Your task to perform on an android device: Open Amazon Image 0: 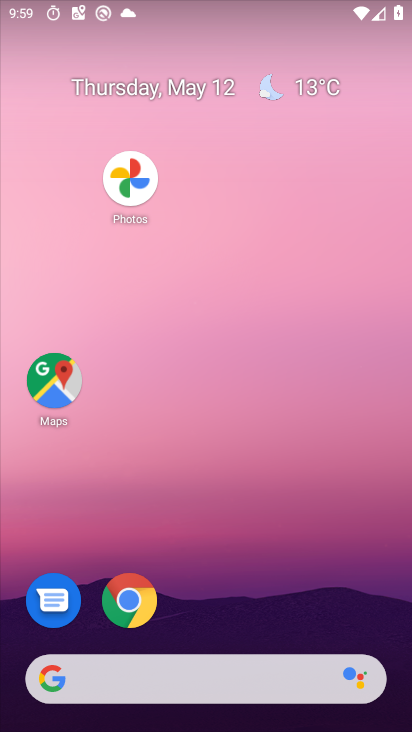
Step 0: click (162, 136)
Your task to perform on an android device: Open Amazon Image 1: 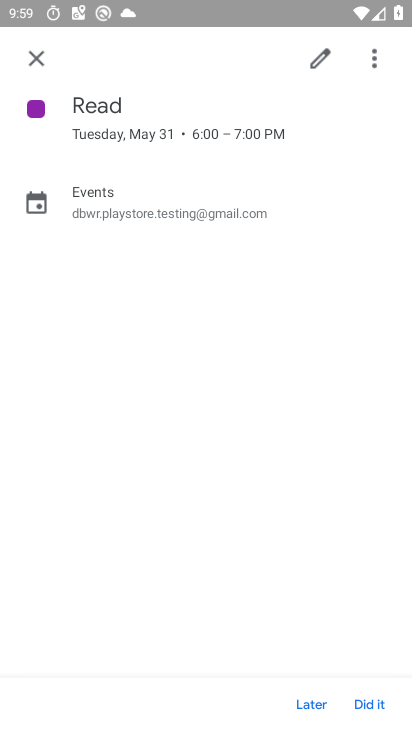
Step 1: drag from (217, 288) to (209, 239)
Your task to perform on an android device: Open Amazon Image 2: 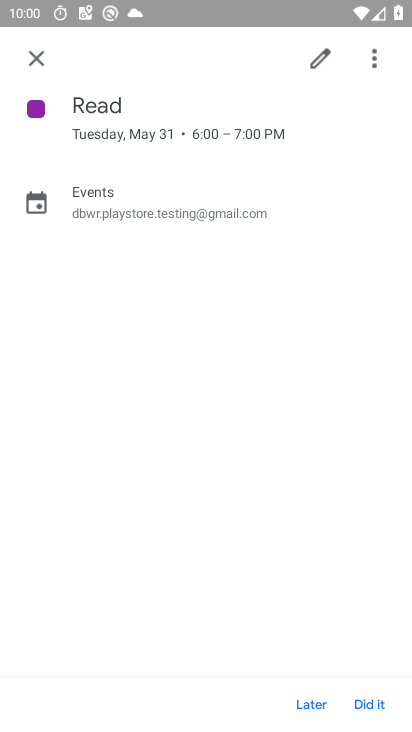
Step 2: click (36, 54)
Your task to perform on an android device: Open Amazon Image 3: 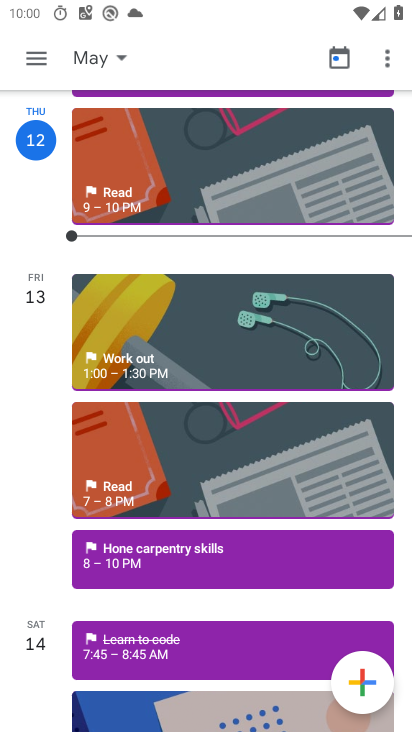
Step 3: click (37, 57)
Your task to perform on an android device: Open Amazon Image 4: 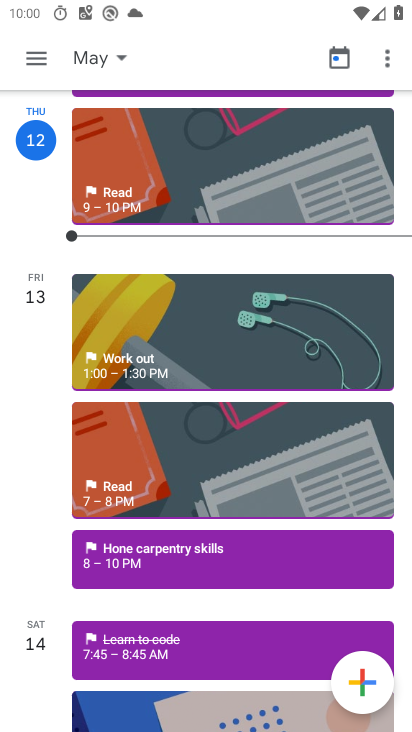
Step 4: press back button
Your task to perform on an android device: Open Amazon Image 5: 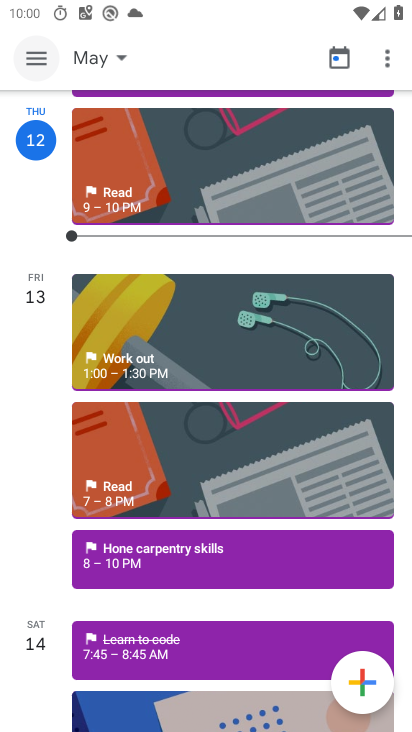
Step 5: click (37, 60)
Your task to perform on an android device: Open Amazon Image 6: 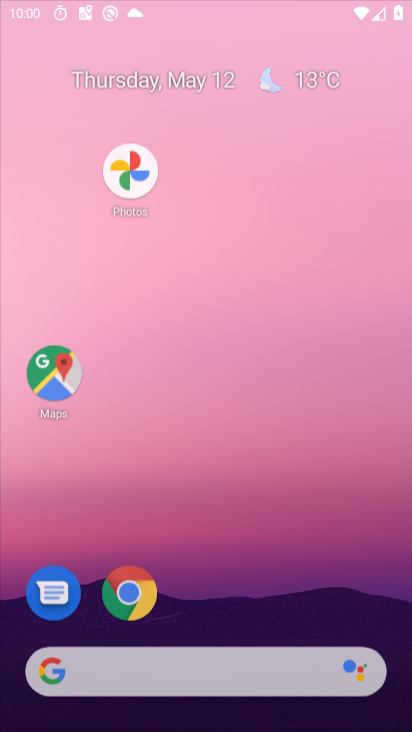
Step 6: click (44, 62)
Your task to perform on an android device: Open Amazon Image 7: 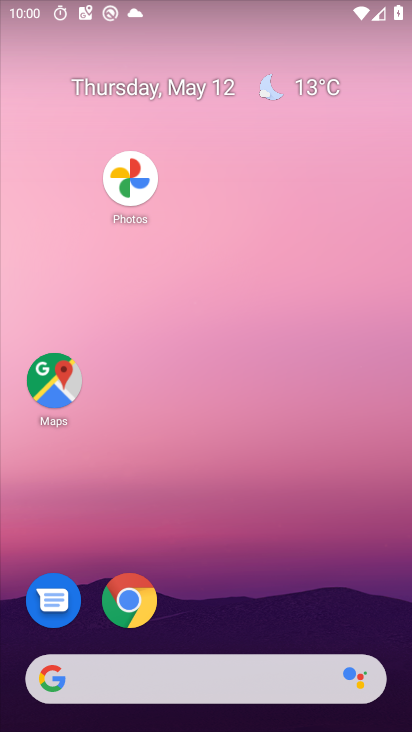
Step 7: press home button
Your task to perform on an android device: Open Amazon Image 8: 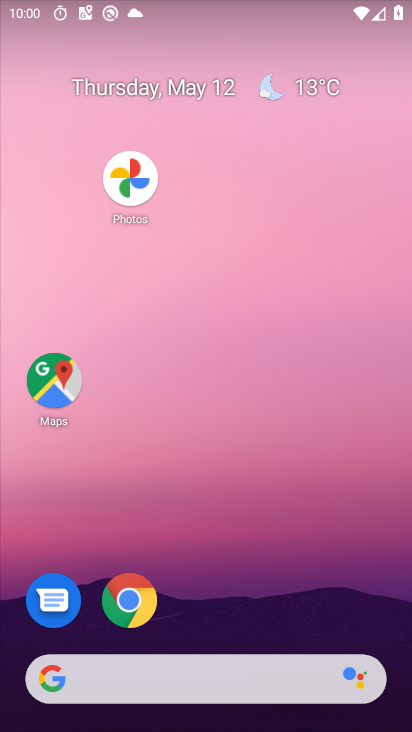
Step 8: press home button
Your task to perform on an android device: Open Amazon Image 9: 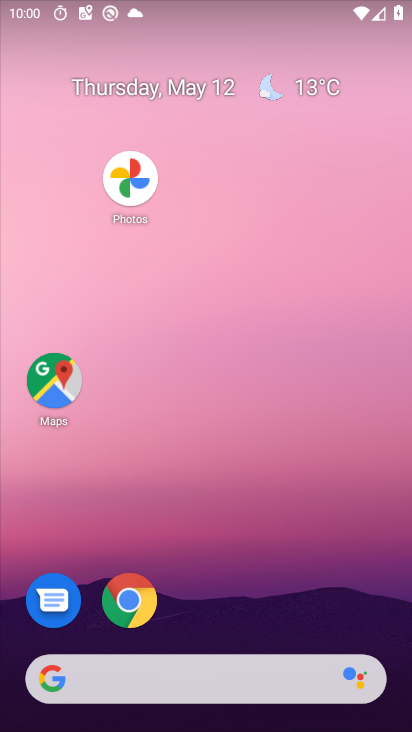
Step 9: drag from (117, 315) to (39, 49)
Your task to perform on an android device: Open Amazon Image 10: 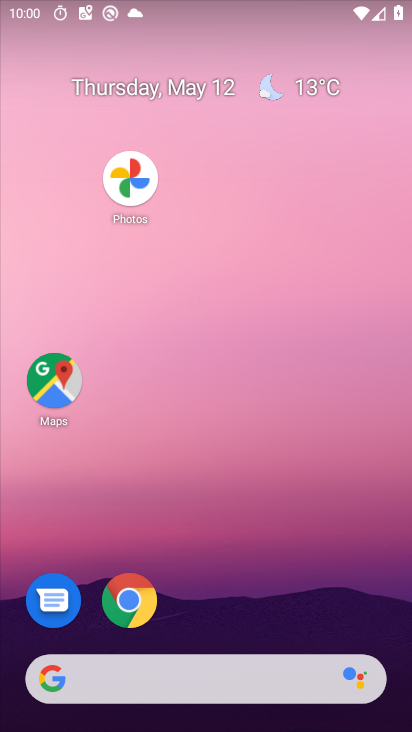
Step 10: drag from (288, 579) to (164, 38)
Your task to perform on an android device: Open Amazon Image 11: 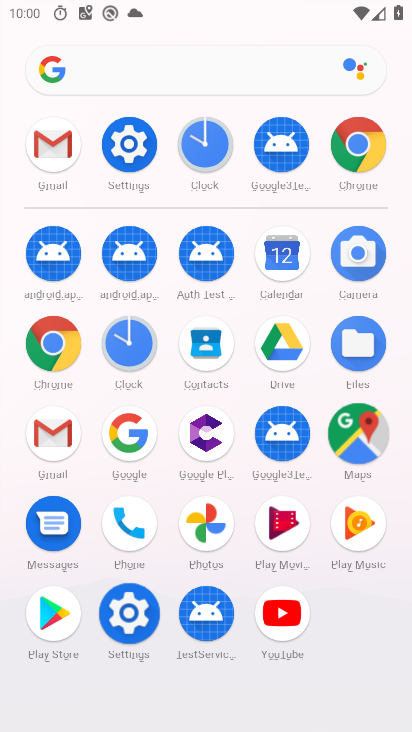
Step 11: drag from (224, 552) to (174, 12)
Your task to perform on an android device: Open Amazon Image 12: 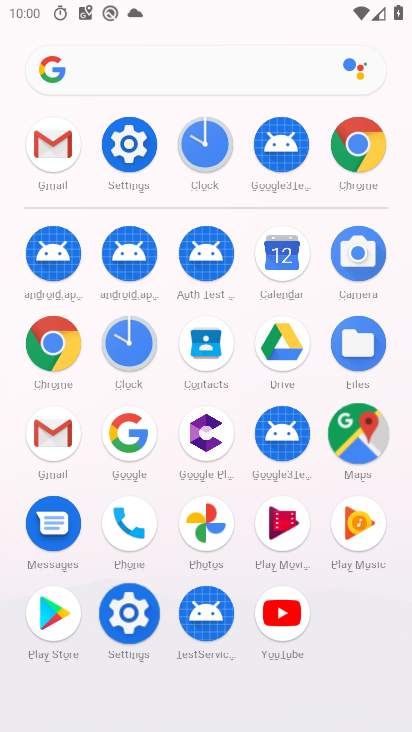
Step 12: click (369, 153)
Your task to perform on an android device: Open Amazon Image 13: 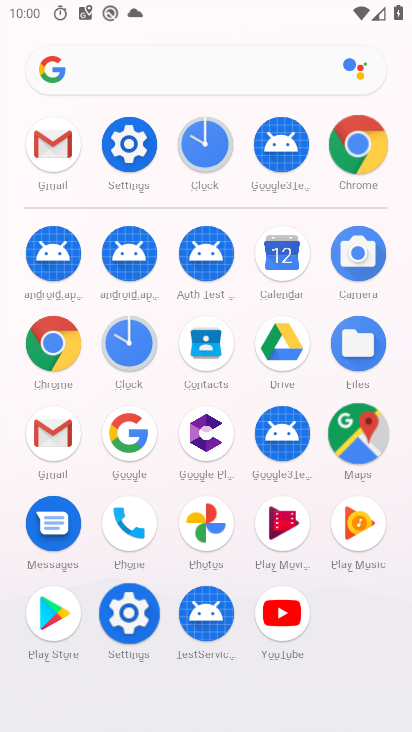
Step 13: click (369, 153)
Your task to perform on an android device: Open Amazon Image 14: 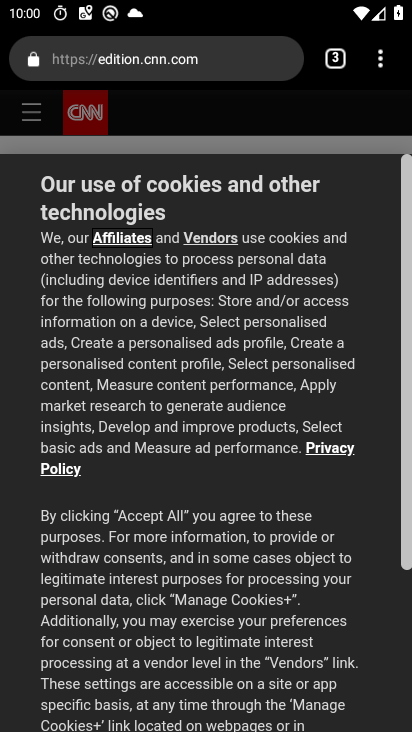
Step 14: drag from (382, 65) to (187, 431)
Your task to perform on an android device: Open Amazon Image 15: 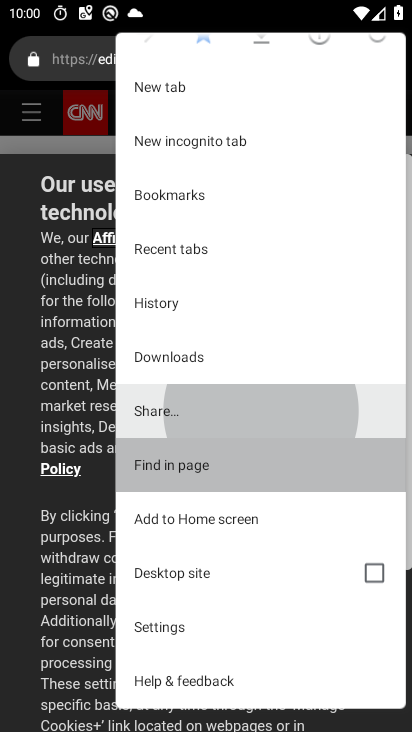
Step 15: drag from (217, 165) to (258, 93)
Your task to perform on an android device: Open Amazon Image 16: 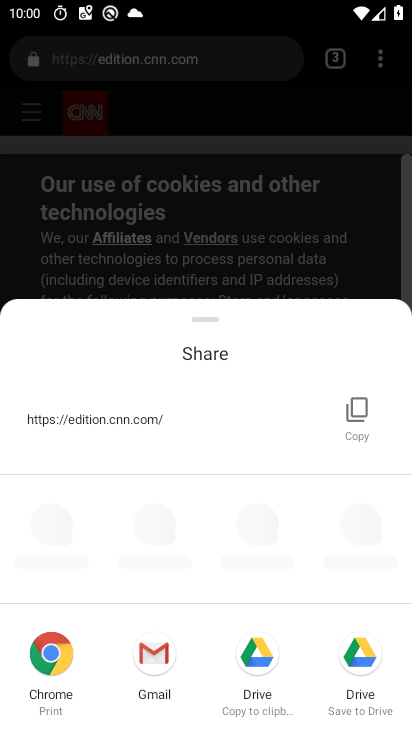
Step 16: click (374, 64)
Your task to perform on an android device: Open Amazon Image 17: 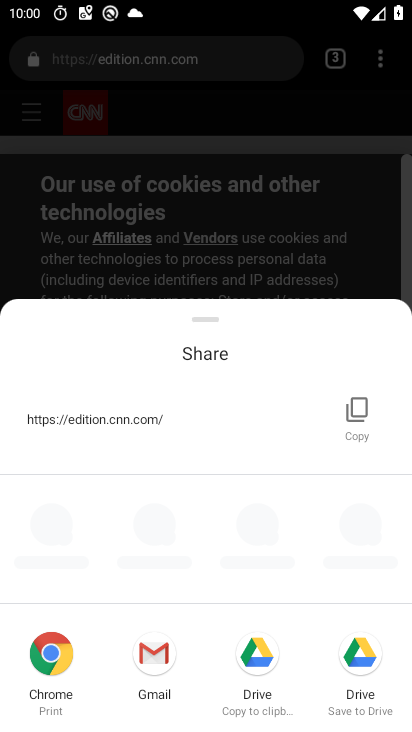
Step 17: click (374, 65)
Your task to perform on an android device: Open Amazon Image 18: 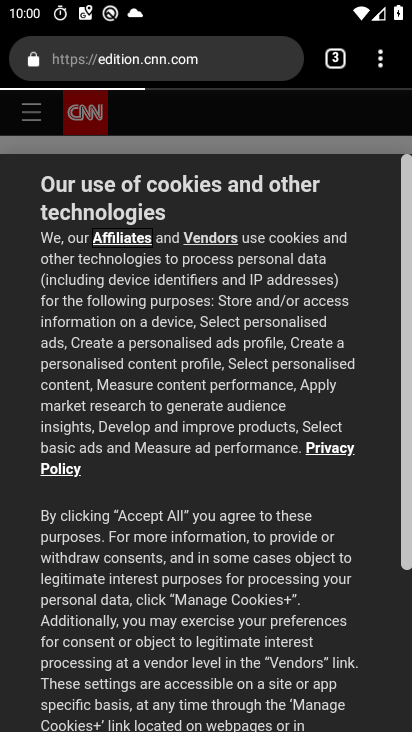
Step 18: drag from (380, 65) to (159, 122)
Your task to perform on an android device: Open Amazon Image 19: 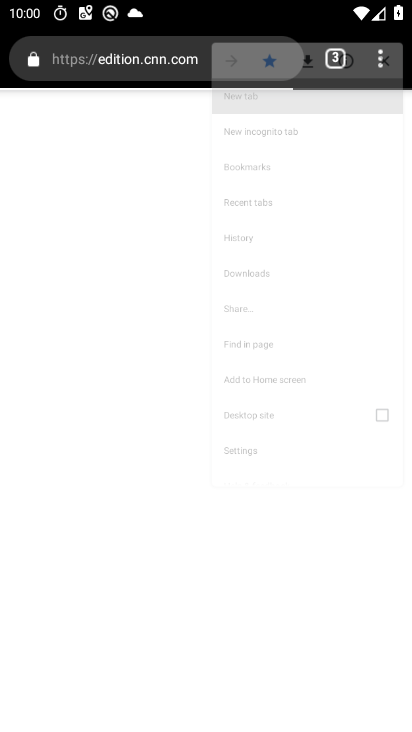
Step 19: click (159, 122)
Your task to perform on an android device: Open Amazon Image 20: 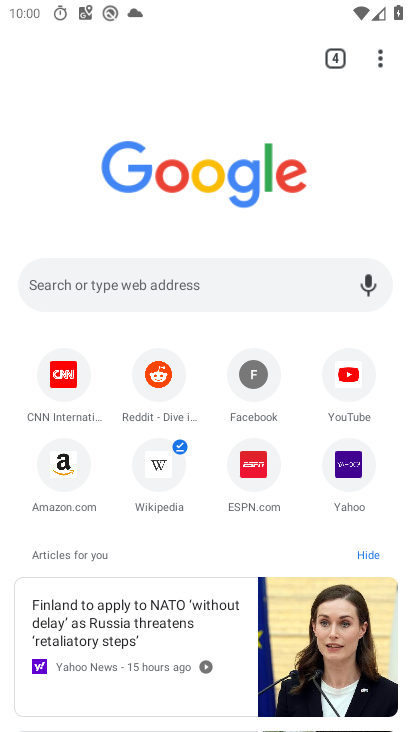
Step 20: click (57, 469)
Your task to perform on an android device: Open Amazon Image 21: 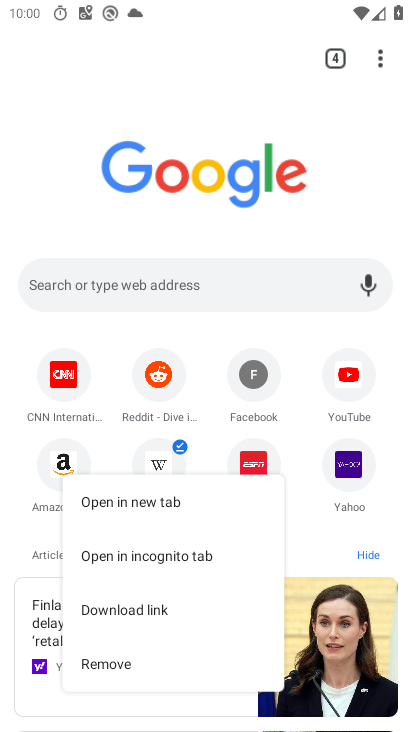
Step 21: click (69, 468)
Your task to perform on an android device: Open Amazon Image 22: 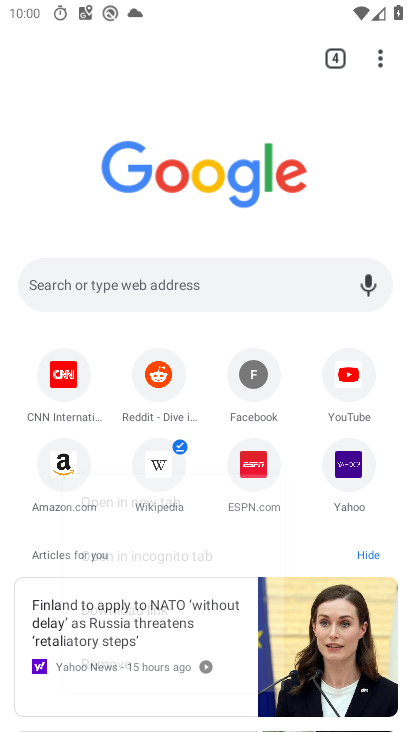
Step 22: click (63, 466)
Your task to perform on an android device: Open Amazon Image 23: 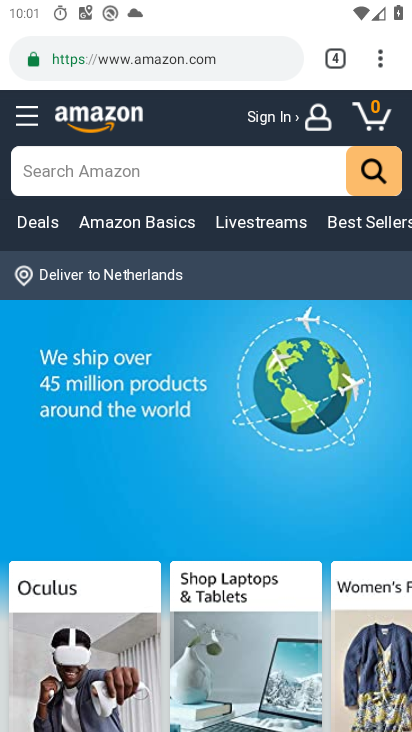
Step 23: task complete